Your task to perform on an android device: Go to sound settings Image 0: 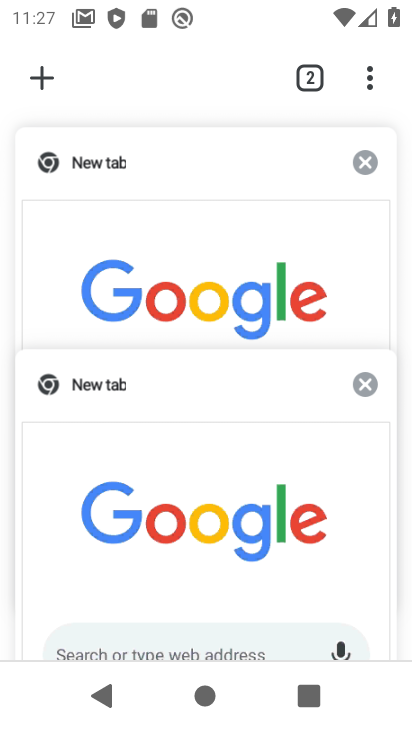
Step 0: press home button
Your task to perform on an android device: Go to sound settings Image 1: 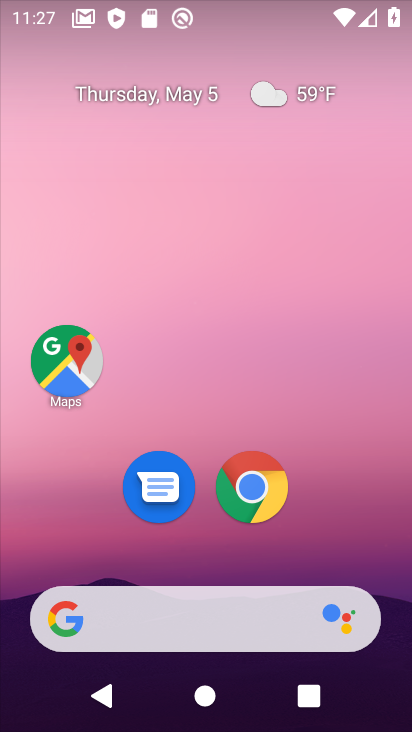
Step 1: drag from (334, 521) to (92, 89)
Your task to perform on an android device: Go to sound settings Image 2: 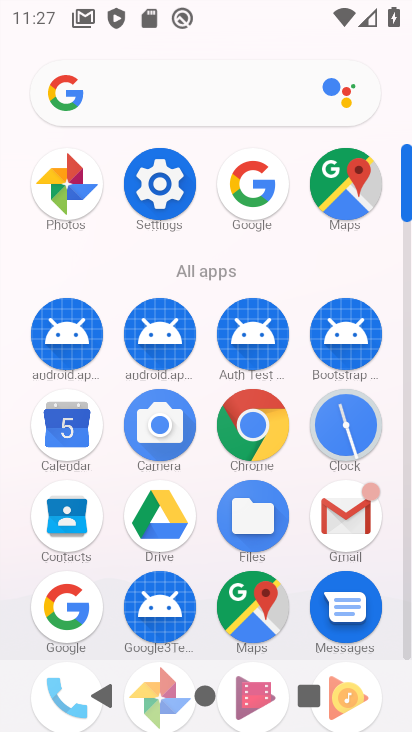
Step 2: click (159, 178)
Your task to perform on an android device: Go to sound settings Image 3: 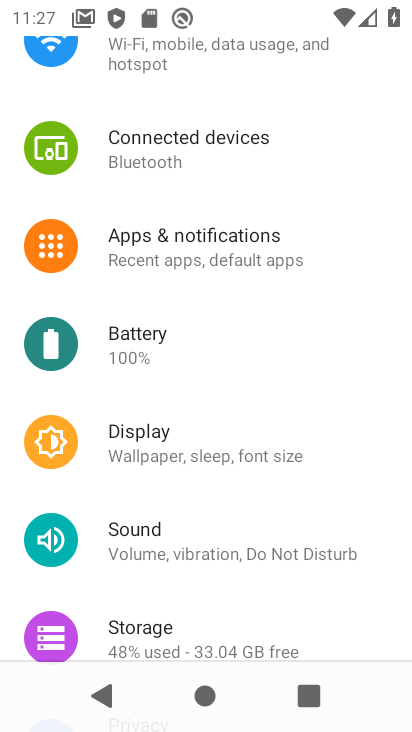
Step 3: click (146, 539)
Your task to perform on an android device: Go to sound settings Image 4: 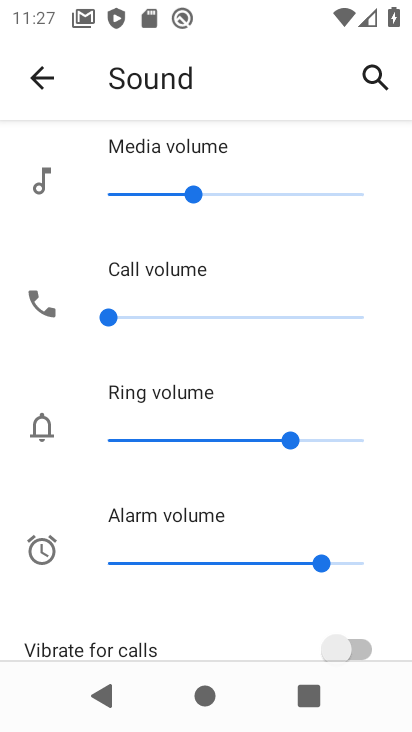
Step 4: task complete